Your task to perform on an android device: Open Amazon Image 0: 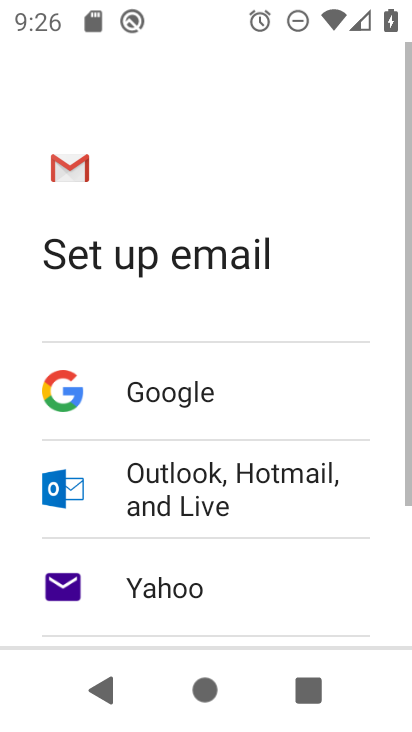
Step 0: press home button
Your task to perform on an android device: Open Amazon Image 1: 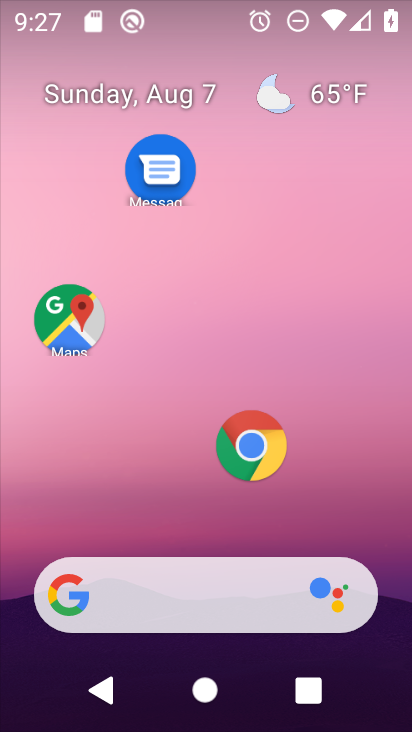
Step 1: click (248, 436)
Your task to perform on an android device: Open Amazon Image 2: 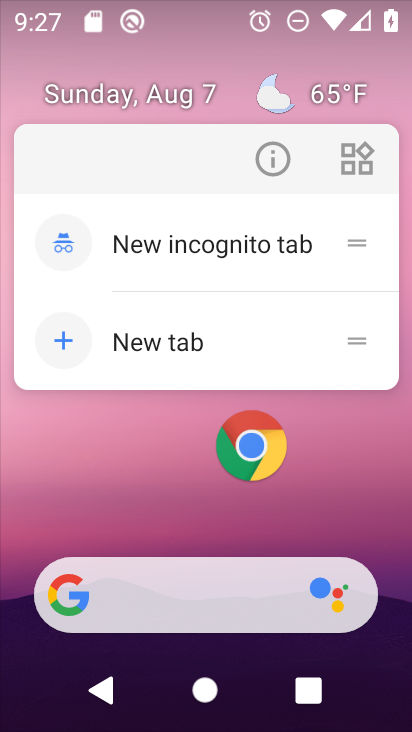
Step 2: click (320, 512)
Your task to perform on an android device: Open Amazon Image 3: 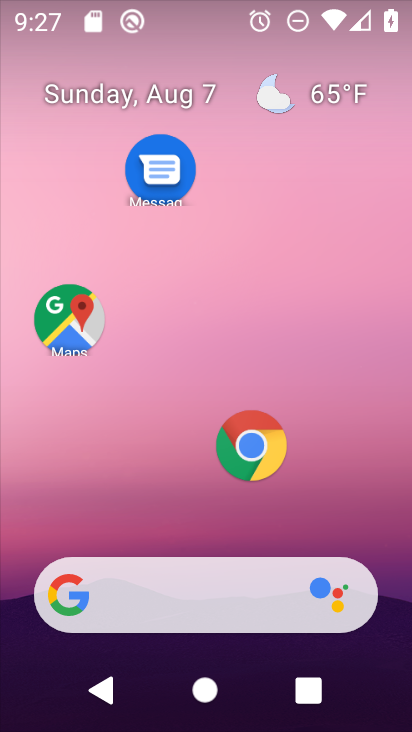
Step 3: drag from (308, 524) to (318, 55)
Your task to perform on an android device: Open Amazon Image 4: 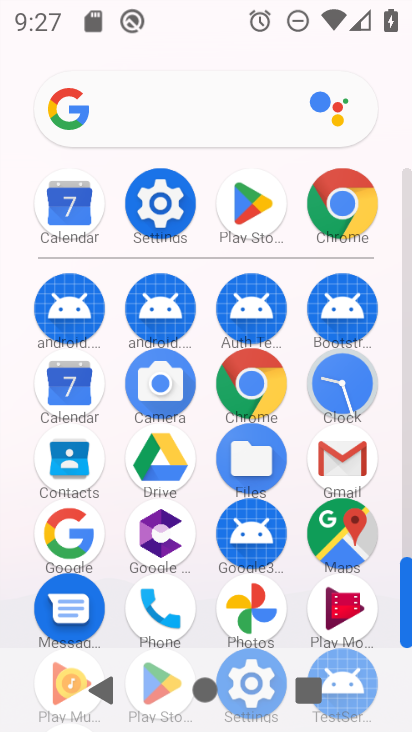
Step 4: click (337, 195)
Your task to perform on an android device: Open Amazon Image 5: 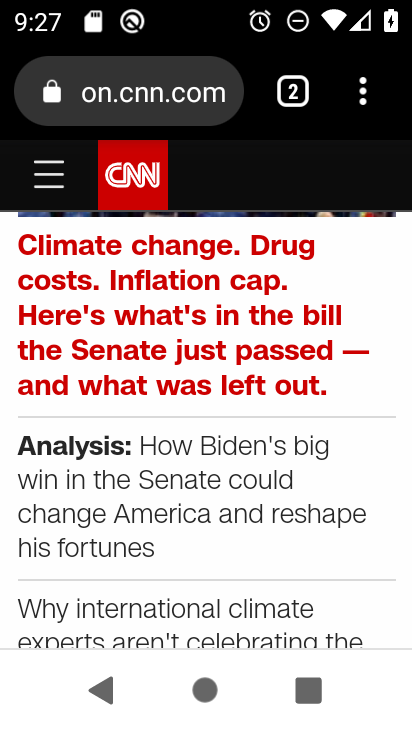
Step 5: click (294, 87)
Your task to perform on an android device: Open Amazon Image 6: 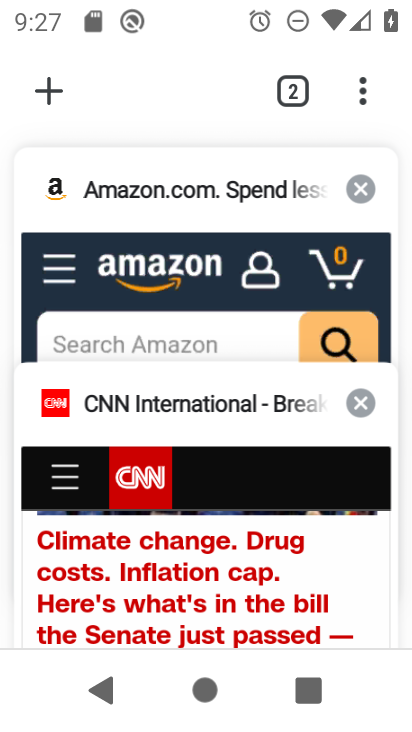
Step 6: click (183, 188)
Your task to perform on an android device: Open Amazon Image 7: 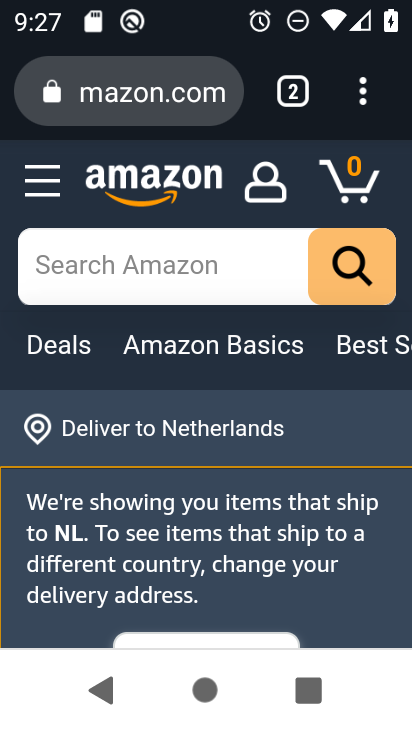
Step 7: task complete